Your task to perform on an android device: turn off location history Image 0: 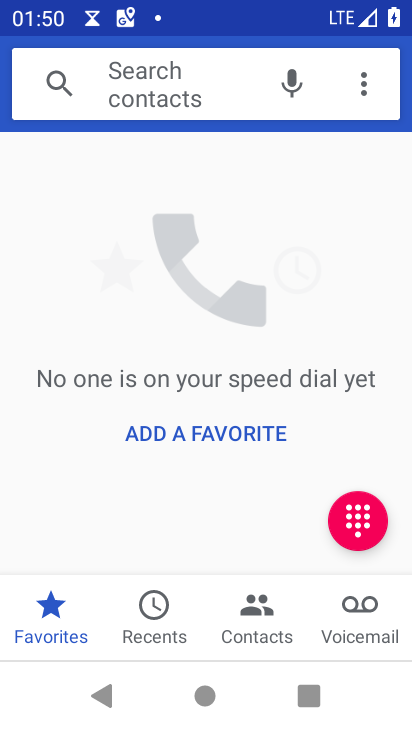
Step 0: press home button
Your task to perform on an android device: turn off location history Image 1: 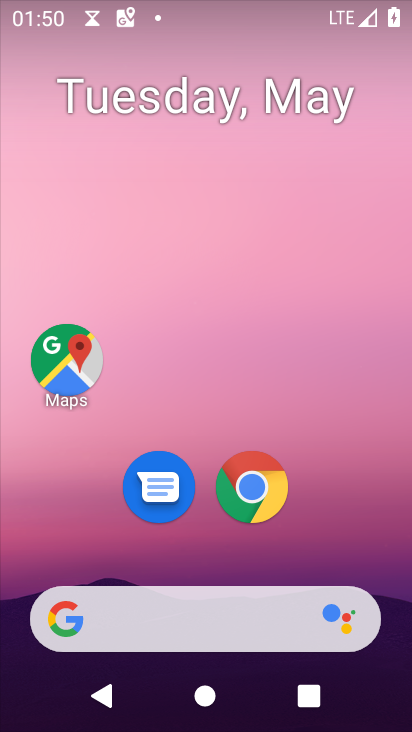
Step 1: drag from (330, 511) to (331, 10)
Your task to perform on an android device: turn off location history Image 2: 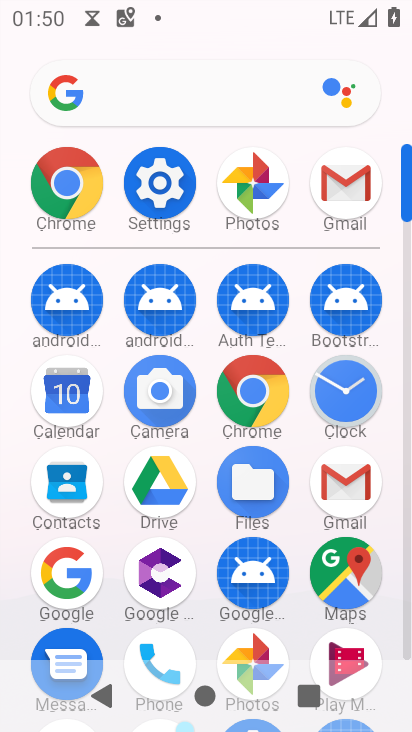
Step 2: click (159, 133)
Your task to perform on an android device: turn off location history Image 3: 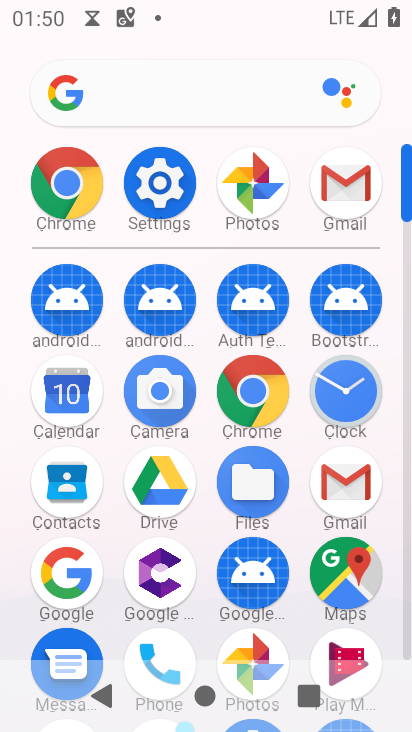
Step 3: click (159, 179)
Your task to perform on an android device: turn off location history Image 4: 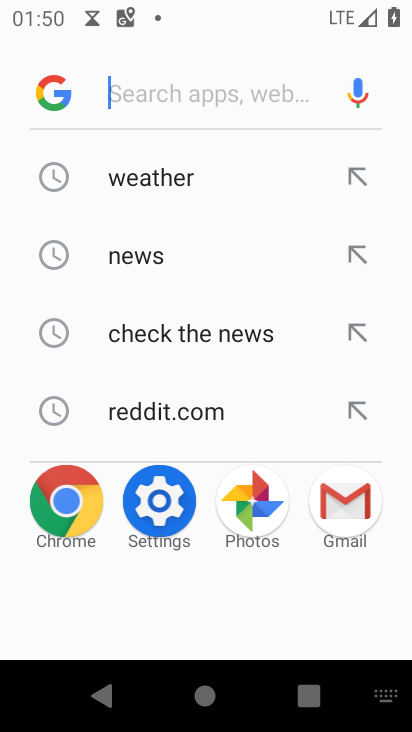
Step 4: click (167, 500)
Your task to perform on an android device: turn off location history Image 5: 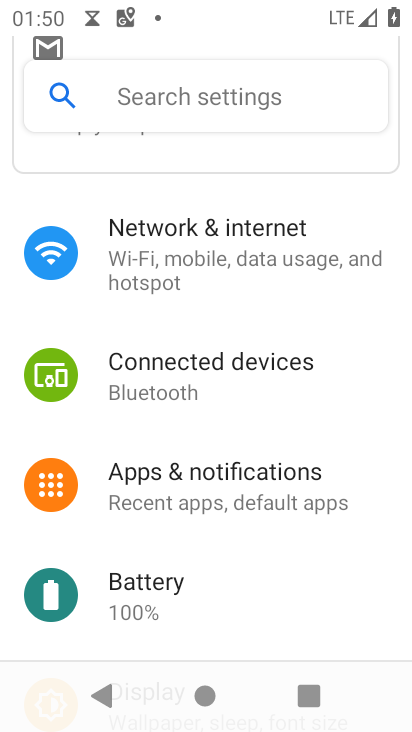
Step 5: drag from (266, 572) to (341, 89)
Your task to perform on an android device: turn off location history Image 6: 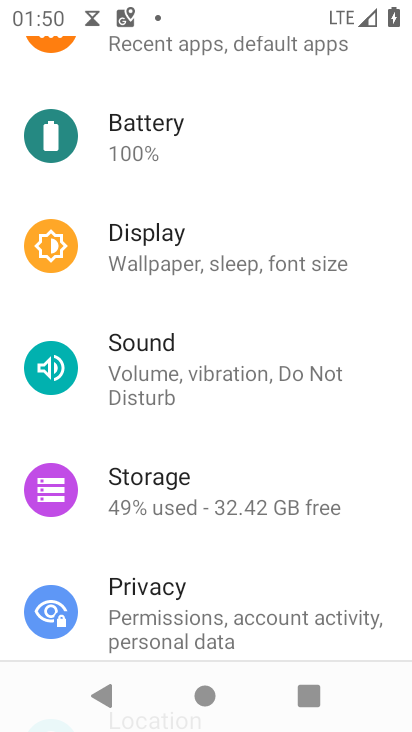
Step 6: drag from (222, 475) to (254, 67)
Your task to perform on an android device: turn off location history Image 7: 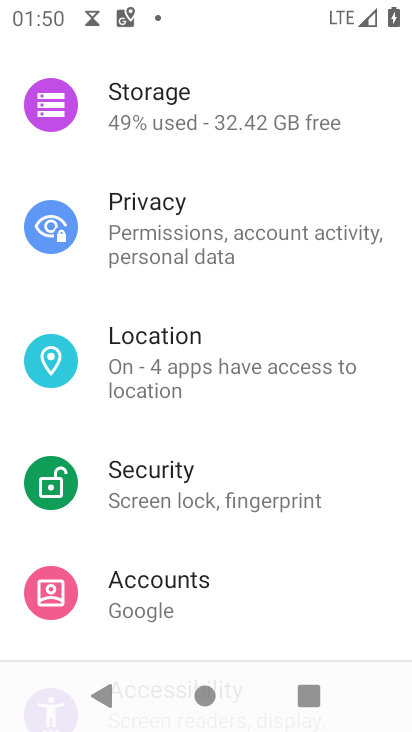
Step 7: click (207, 352)
Your task to perform on an android device: turn off location history Image 8: 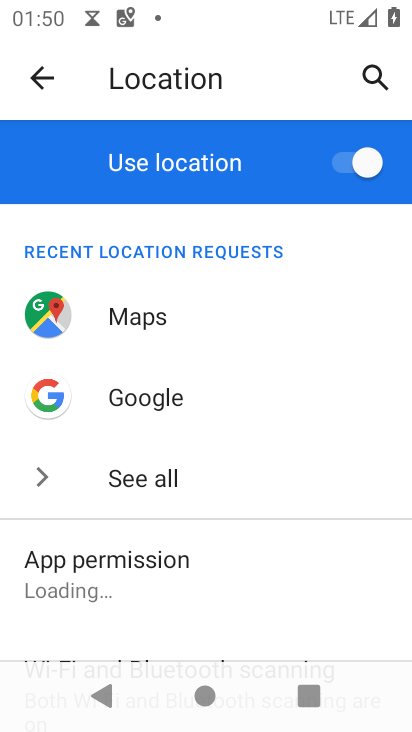
Step 8: drag from (214, 544) to (277, 4)
Your task to perform on an android device: turn off location history Image 9: 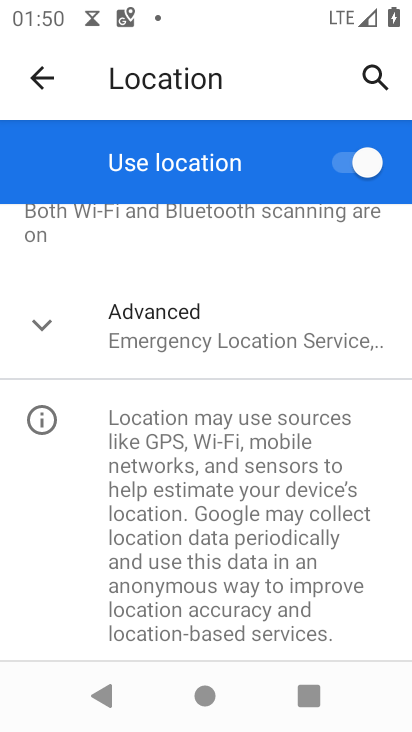
Step 9: click (238, 339)
Your task to perform on an android device: turn off location history Image 10: 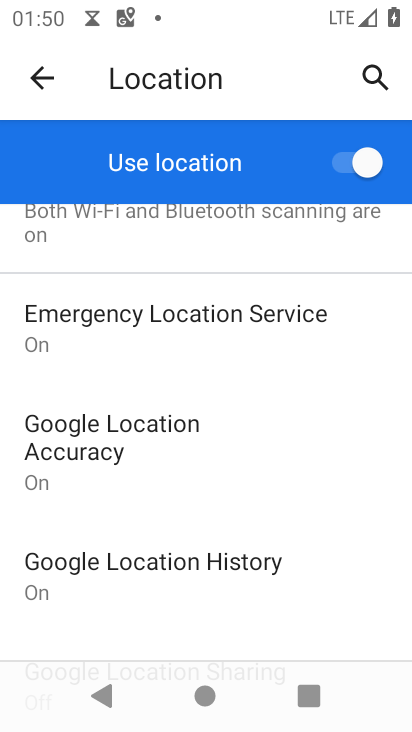
Step 10: click (230, 562)
Your task to perform on an android device: turn off location history Image 11: 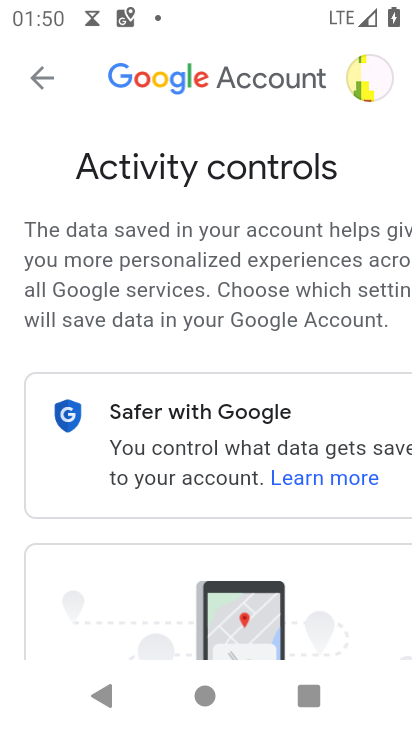
Step 11: drag from (333, 545) to (410, 569)
Your task to perform on an android device: turn off location history Image 12: 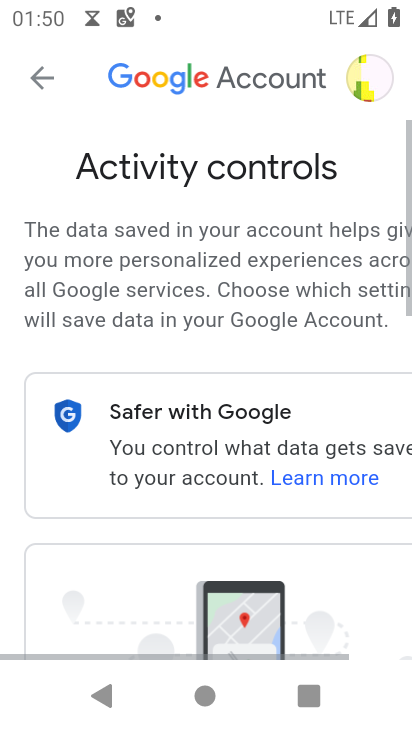
Step 12: drag from (226, 481) to (274, 102)
Your task to perform on an android device: turn off location history Image 13: 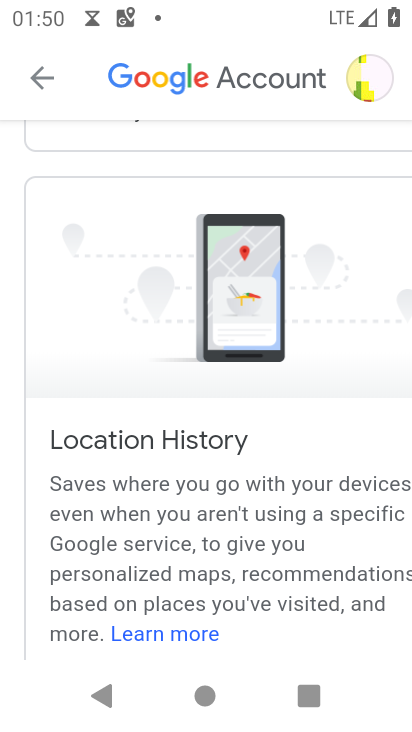
Step 13: drag from (267, 551) to (384, 0)
Your task to perform on an android device: turn off location history Image 14: 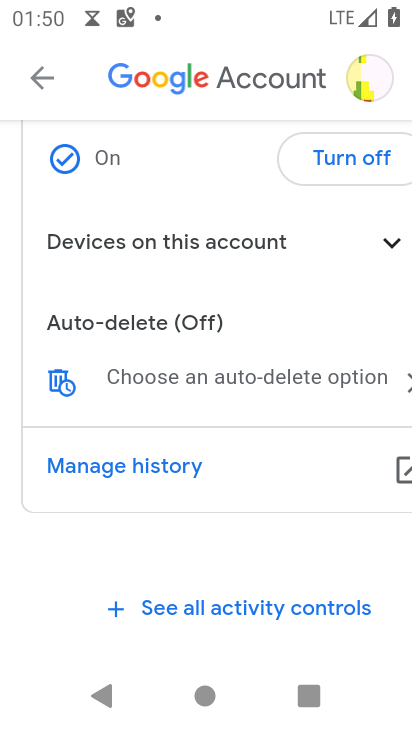
Step 14: click (317, 163)
Your task to perform on an android device: turn off location history Image 15: 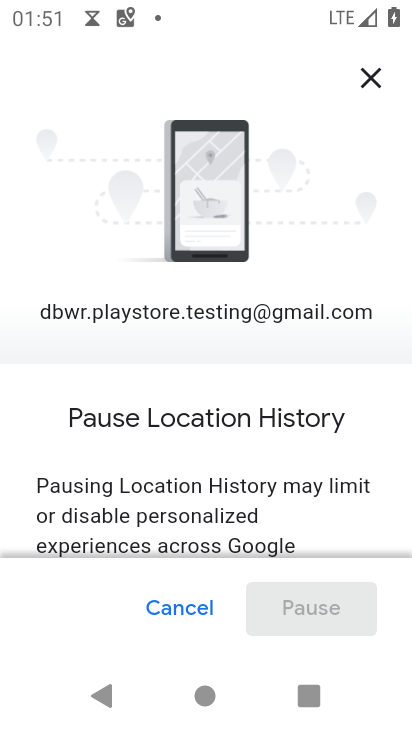
Step 15: drag from (328, 440) to (404, 443)
Your task to perform on an android device: turn off location history Image 16: 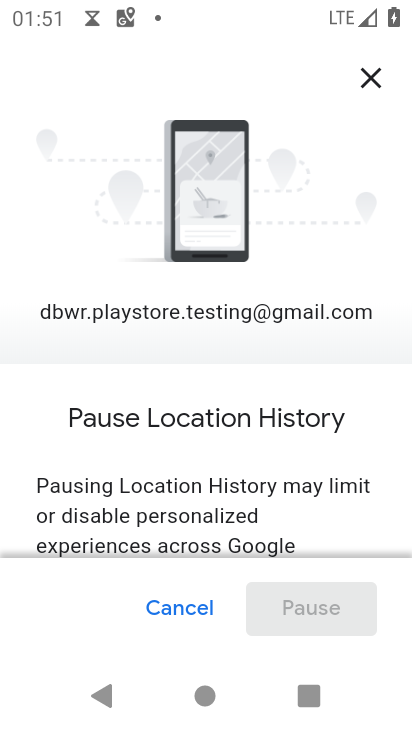
Step 16: drag from (360, 411) to (408, 2)
Your task to perform on an android device: turn off location history Image 17: 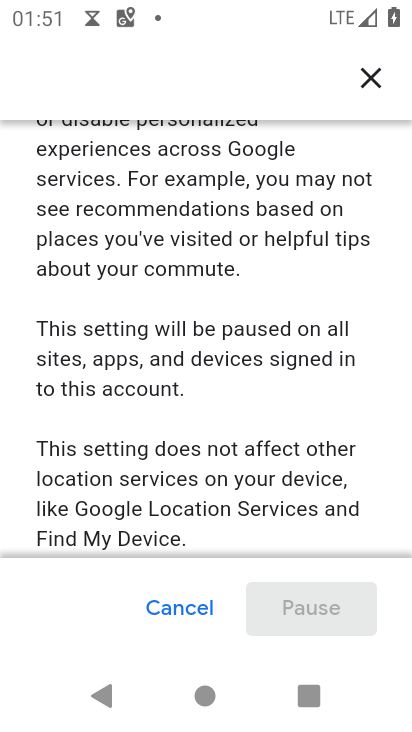
Step 17: drag from (335, 417) to (314, 3)
Your task to perform on an android device: turn off location history Image 18: 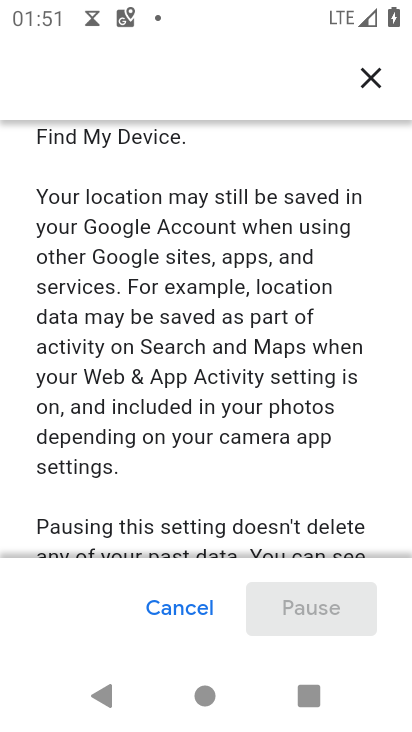
Step 18: drag from (164, 479) to (247, 177)
Your task to perform on an android device: turn off location history Image 19: 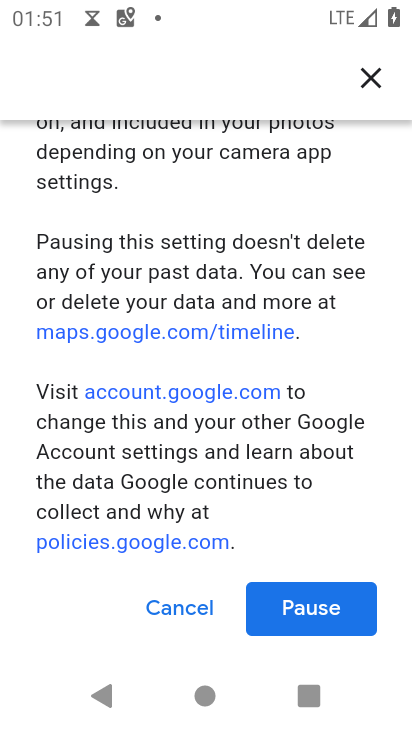
Step 19: click (327, 611)
Your task to perform on an android device: turn off location history Image 20: 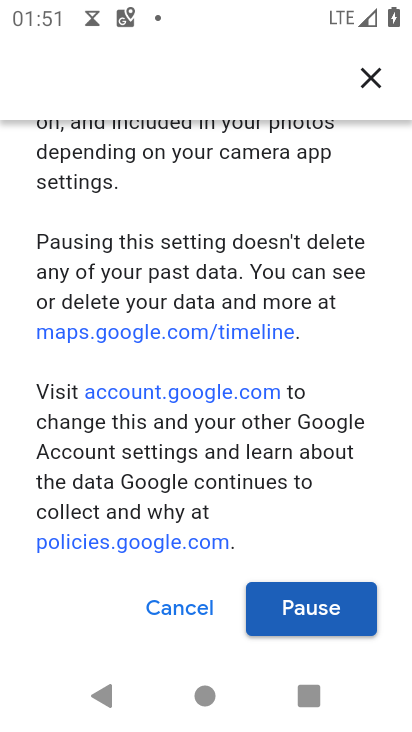
Step 20: click (339, 615)
Your task to perform on an android device: turn off location history Image 21: 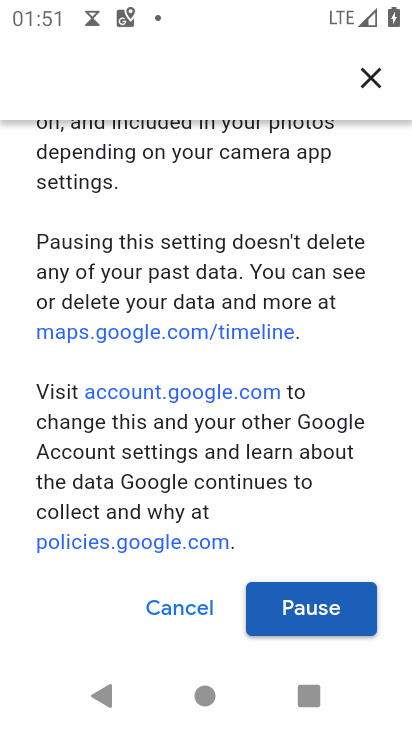
Step 21: click (348, 595)
Your task to perform on an android device: turn off location history Image 22: 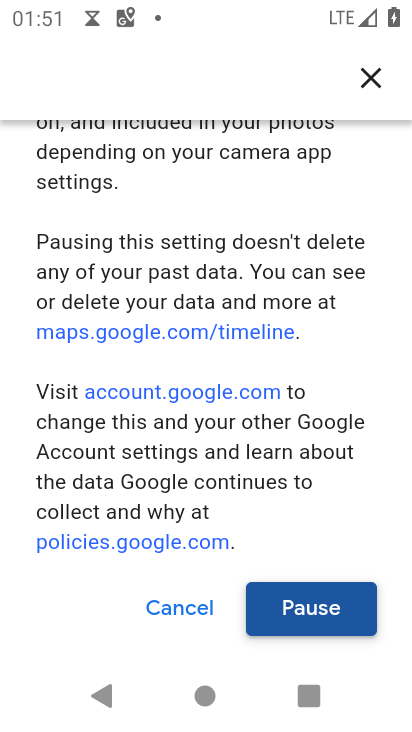
Step 22: click (341, 613)
Your task to perform on an android device: turn off location history Image 23: 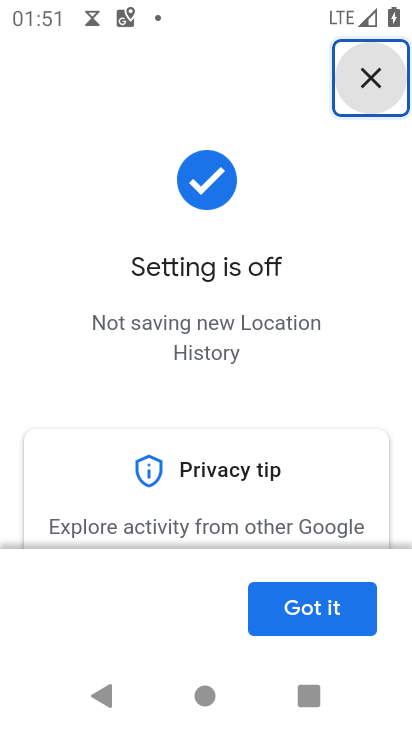
Step 23: click (311, 608)
Your task to perform on an android device: turn off location history Image 24: 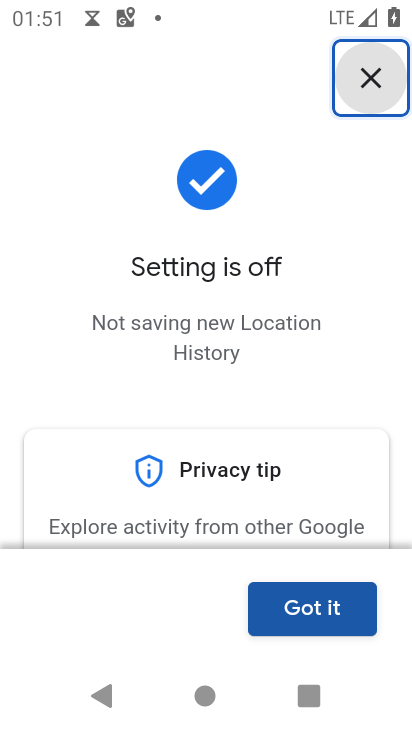
Step 24: task complete